Your task to perform on an android device: Search for sushi restaurants on Maps Image 0: 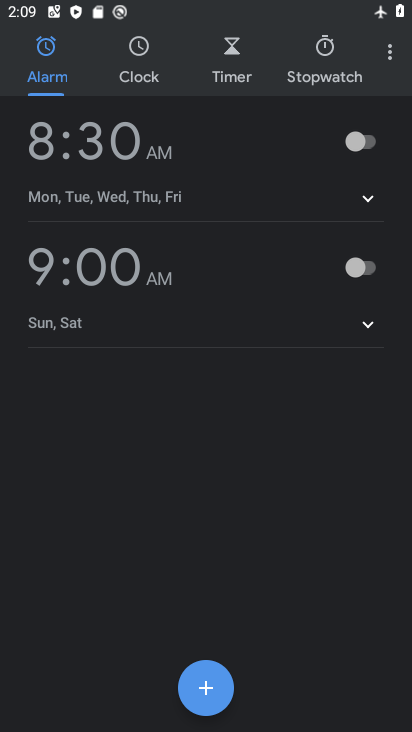
Step 0: press home button
Your task to perform on an android device: Search for sushi restaurants on Maps Image 1: 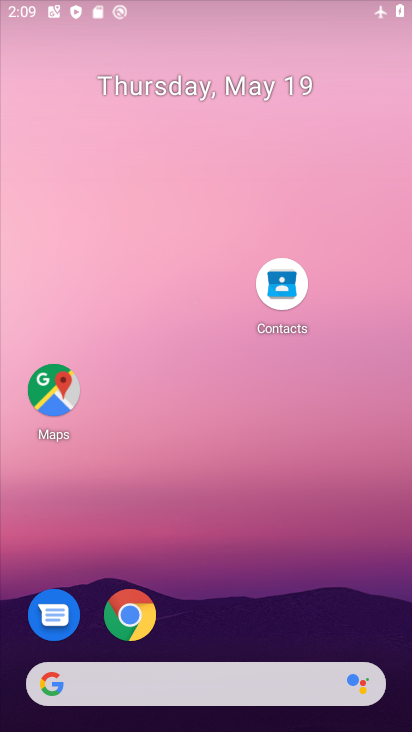
Step 1: drag from (237, 679) to (319, 101)
Your task to perform on an android device: Search for sushi restaurants on Maps Image 2: 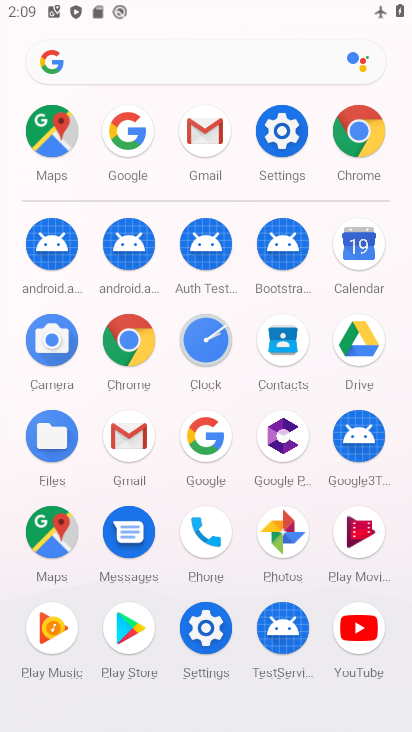
Step 2: click (62, 540)
Your task to perform on an android device: Search for sushi restaurants on Maps Image 3: 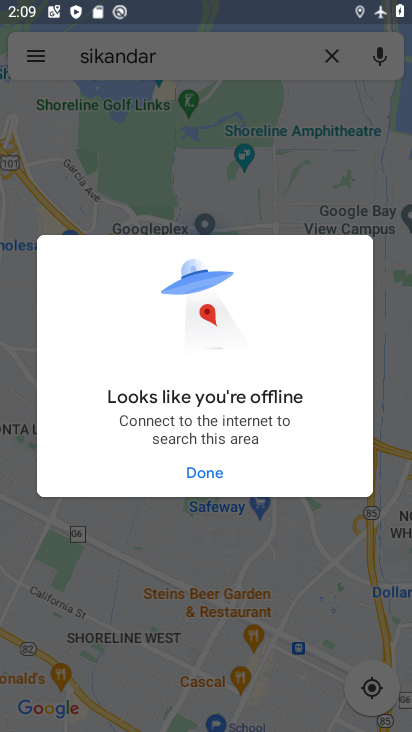
Step 3: click (204, 484)
Your task to perform on an android device: Search for sushi restaurants on Maps Image 4: 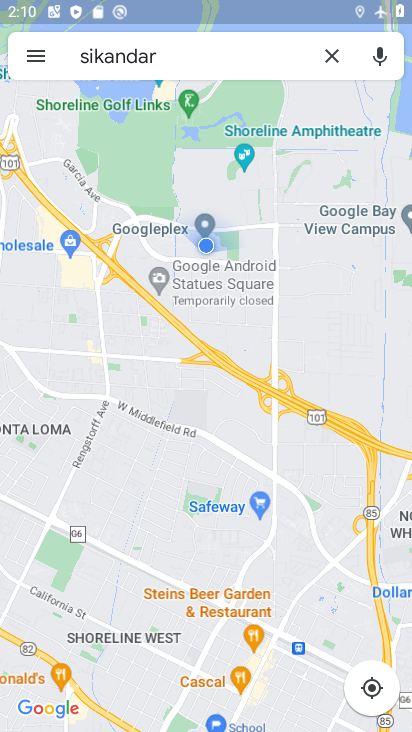
Step 4: click (322, 51)
Your task to perform on an android device: Search for sushi restaurants on Maps Image 5: 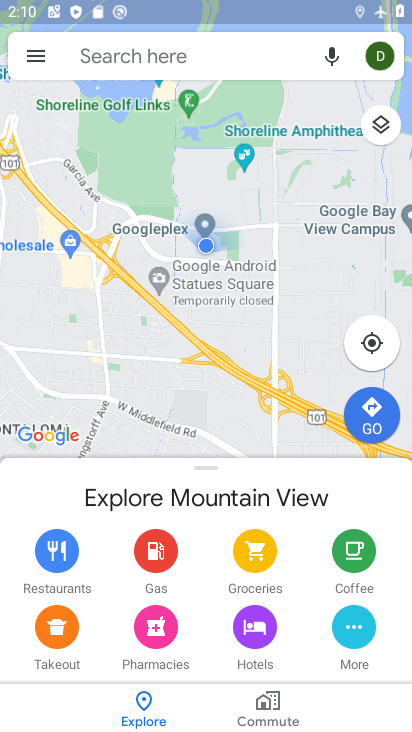
Step 5: click (232, 57)
Your task to perform on an android device: Search for sushi restaurants on Maps Image 6: 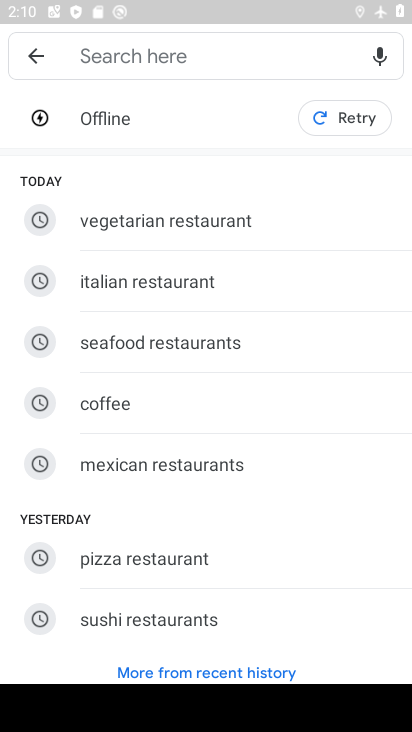
Step 6: drag from (150, 612) to (151, 485)
Your task to perform on an android device: Search for sushi restaurants on Maps Image 7: 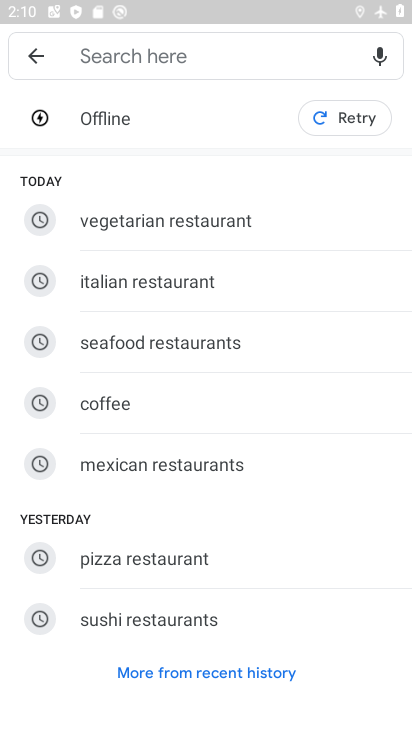
Step 7: click (173, 626)
Your task to perform on an android device: Search for sushi restaurants on Maps Image 8: 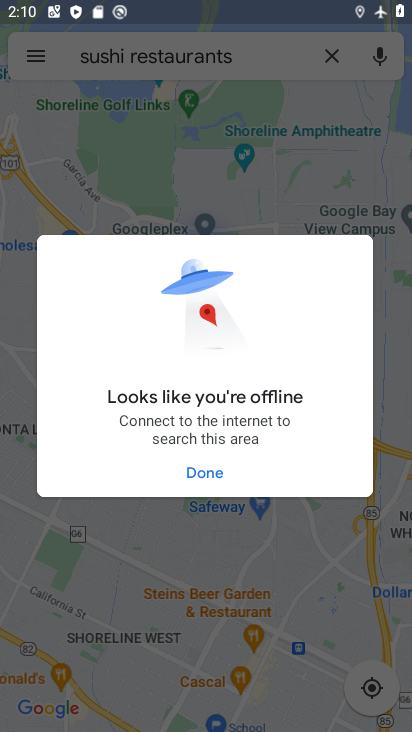
Step 8: task complete